Your task to perform on an android device: Go to Yahoo.com Image 0: 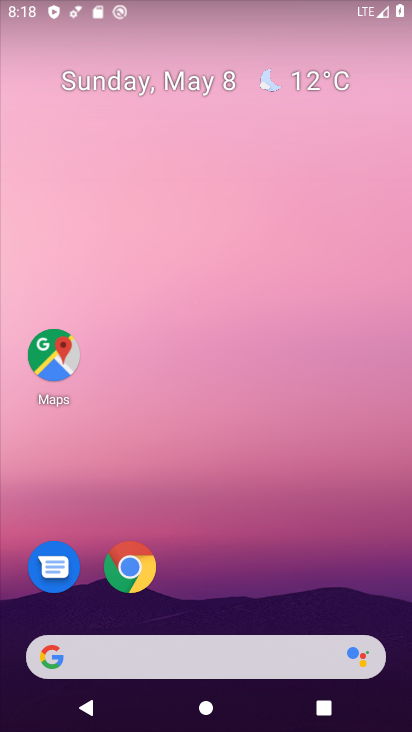
Step 0: click (126, 580)
Your task to perform on an android device: Go to Yahoo.com Image 1: 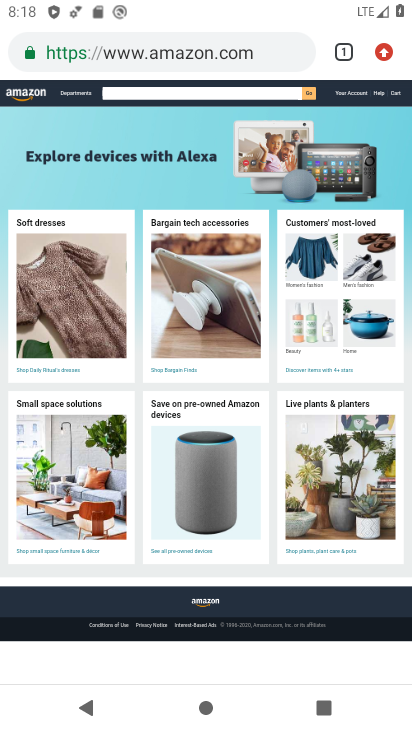
Step 1: click (154, 57)
Your task to perform on an android device: Go to Yahoo.com Image 2: 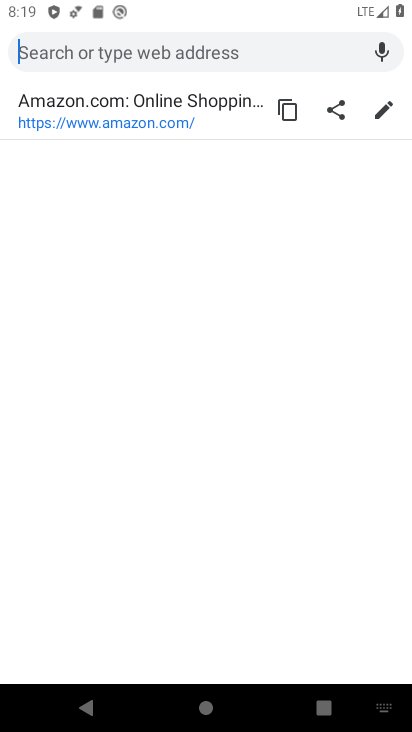
Step 2: type "yahoo.com"
Your task to perform on an android device: Go to Yahoo.com Image 3: 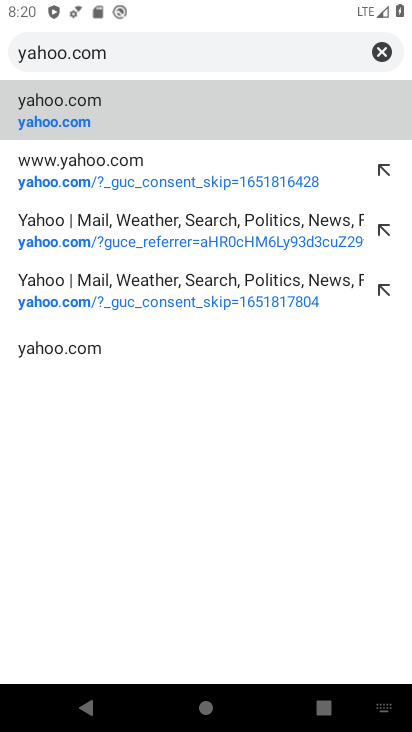
Step 3: click (85, 118)
Your task to perform on an android device: Go to Yahoo.com Image 4: 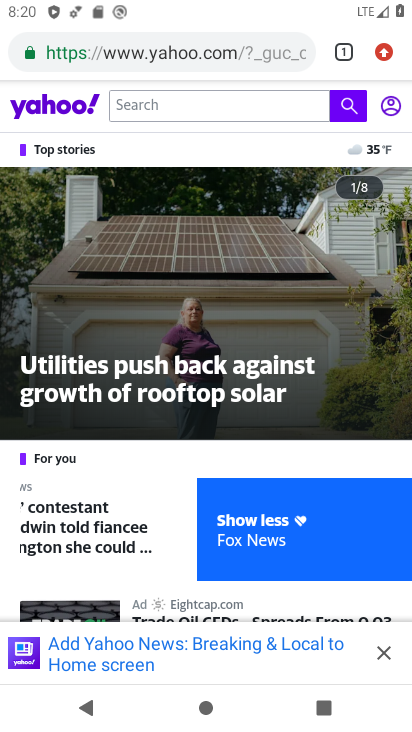
Step 4: task complete